Your task to perform on an android device: open a new tab in the chrome app Image 0: 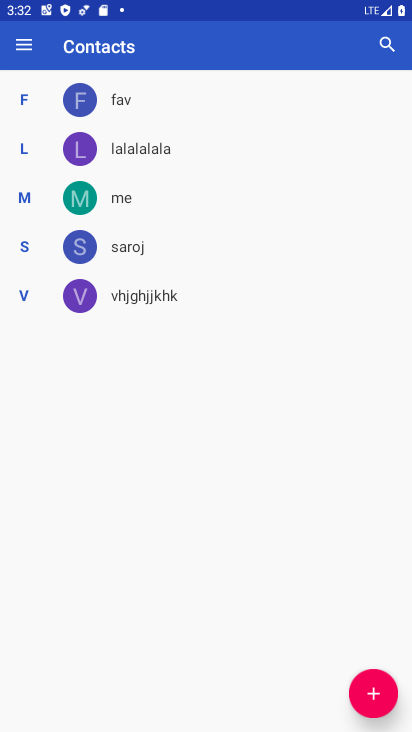
Step 0: press home button
Your task to perform on an android device: open a new tab in the chrome app Image 1: 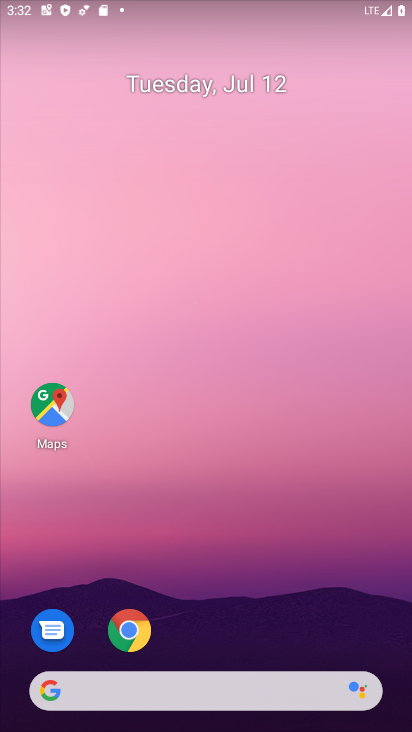
Step 1: drag from (224, 687) to (354, 9)
Your task to perform on an android device: open a new tab in the chrome app Image 2: 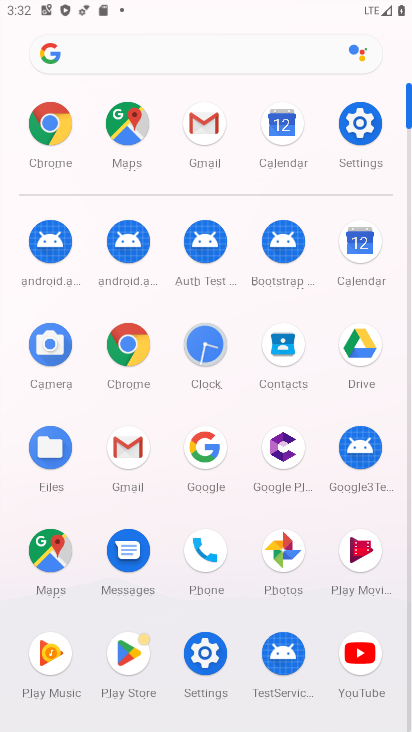
Step 2: click (138, 345)
Your task to perform on an android device: open a new tab in the chrome app Image 3: 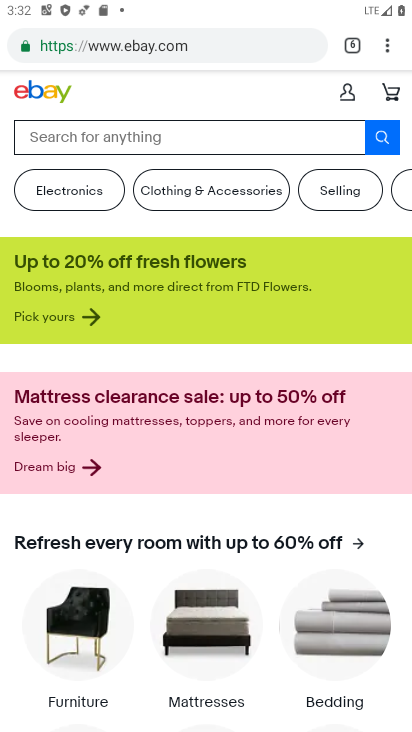
Step 3: task complete